Your task to perform on an android device: change the clock display to show seconds Image 0: 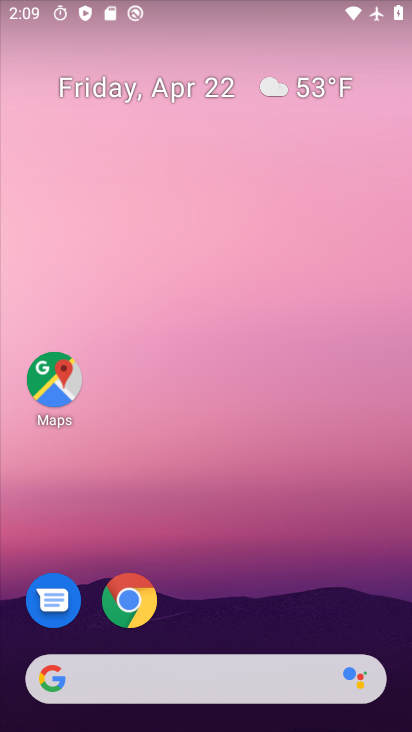
Step 0: drag from (216, 726) to (203, 169)
Your task to perform on an android device: change the clock display to show seconds Image 1: 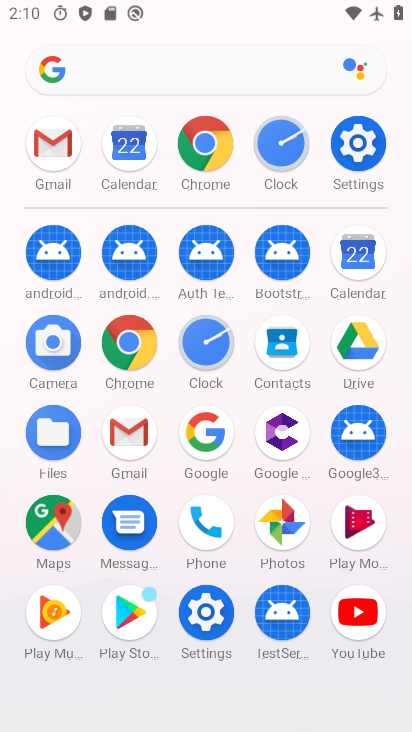
Step 1: click (208, 343)
Your task to perform on an android device: change the clock display to show seconds Image 2: 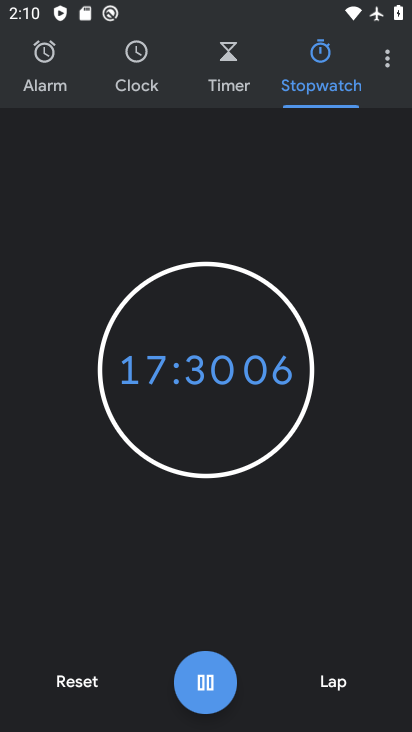
Step 2: click (386, 60)
Your task to perform on an android device: change the clock display to show seconds Image 3: 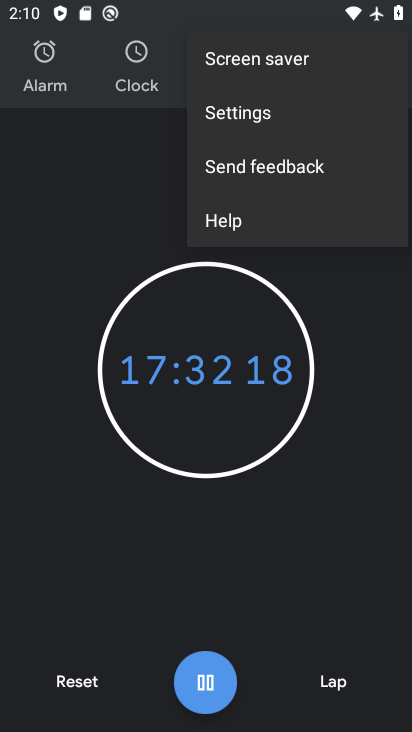
Step 3: click (236, 109)
Your task to perform on an android device: change the clock display to show seconds Image 4: 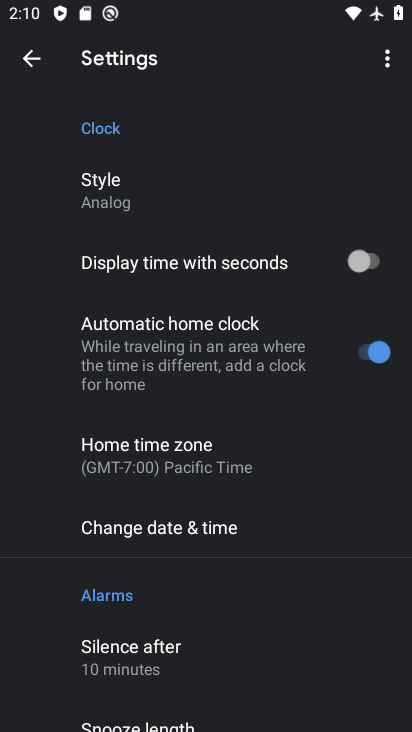
Step 4: click (372, 255)
Your task to perform on an android device: change the clock display to show seconds Image 5: 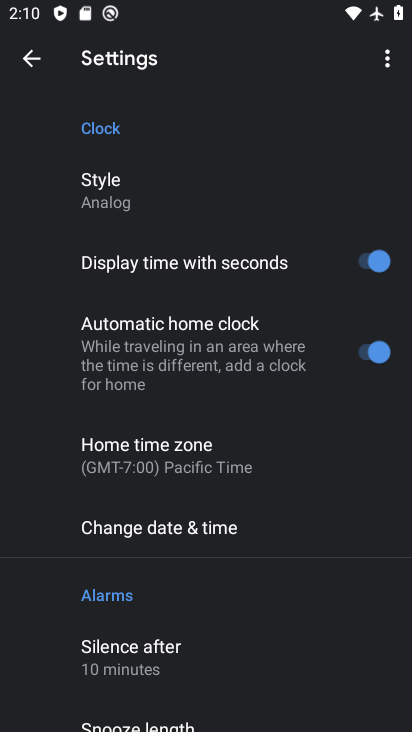
Step 5: task complete